Your task to perform on an android device: See recent photos Image 0: 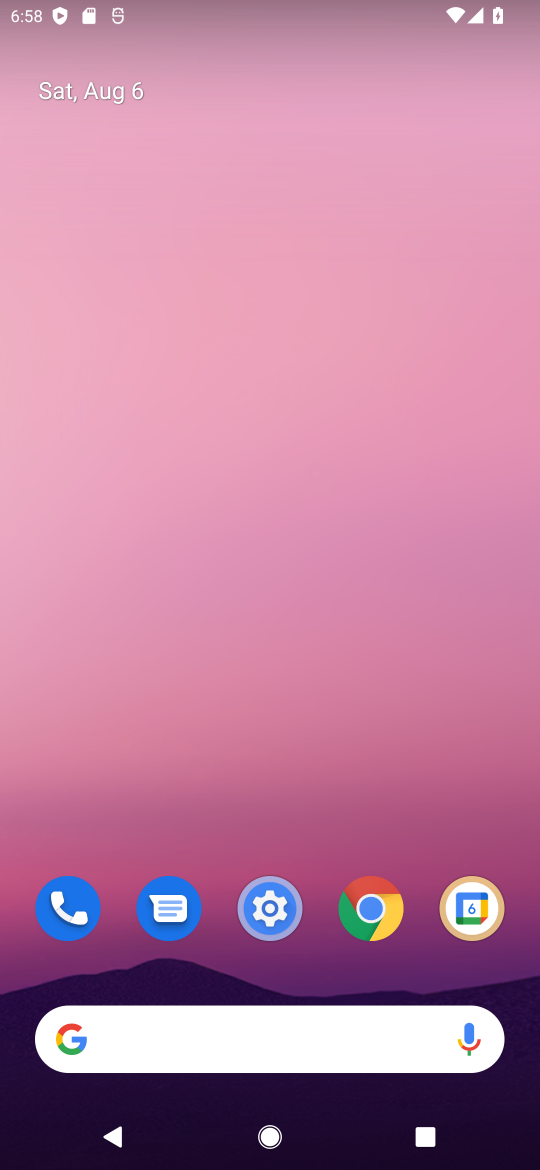
Step 0: drag from (314, 848) to (225, 132)
Your task to perform on an android device: See recent photos Image 1: 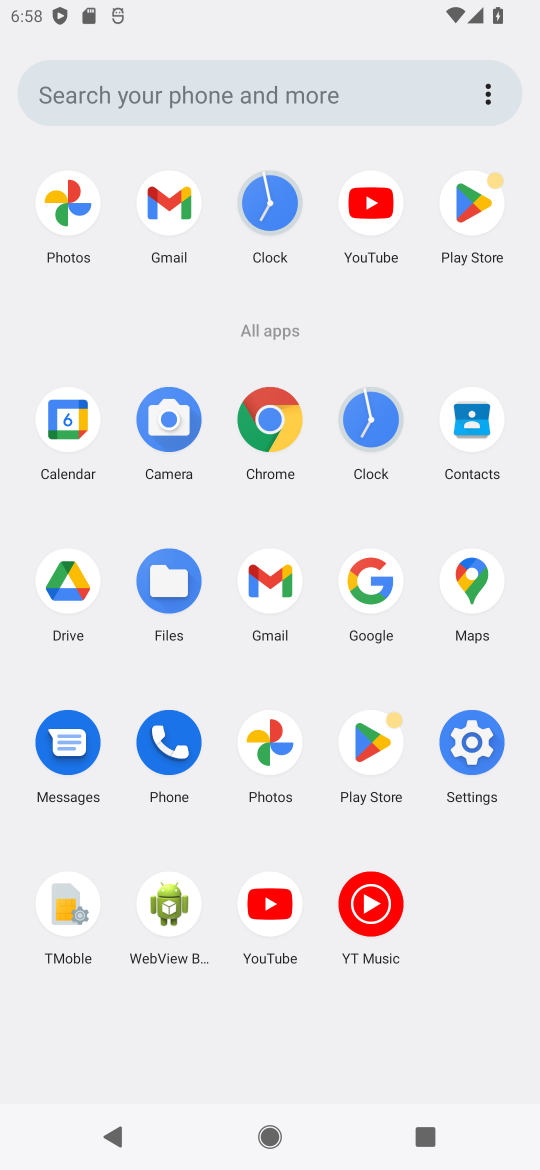
Step 1: click (66, 199)
Your task to perform on an android device: See recent photos Image 2: 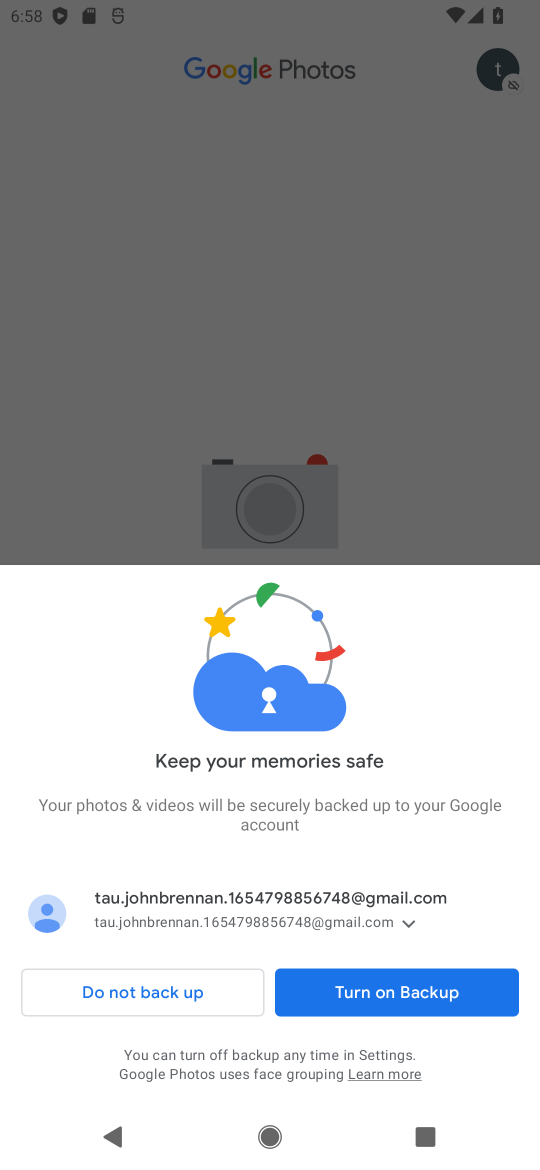
Step 2: click (435, 999)
Your task to perform on an android device: See recent photos Image 3: 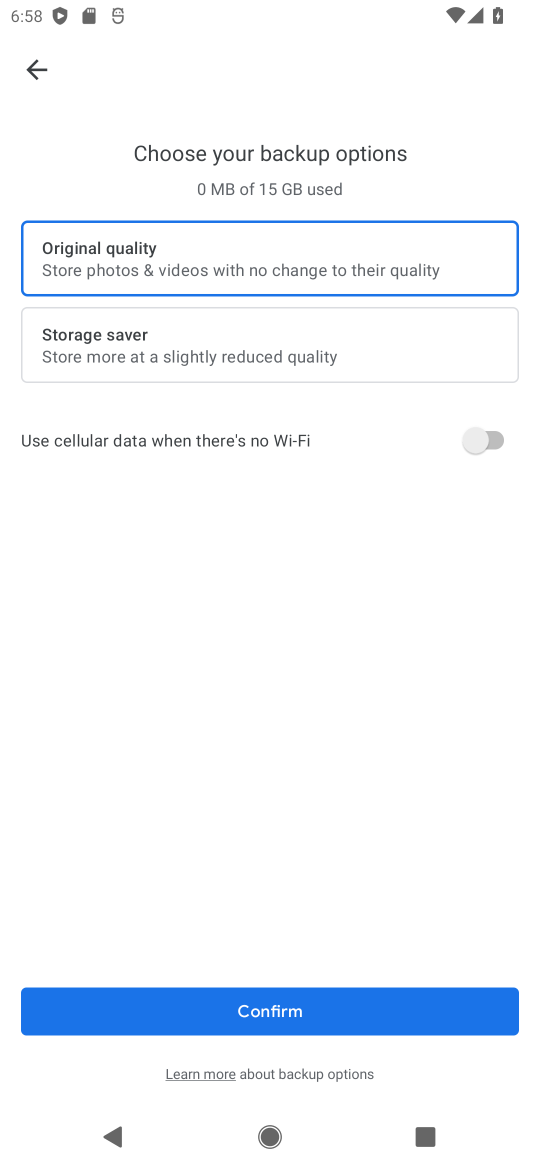
Step 3: click (313, 1006)
Your task to perform on an android device: See recent photos Image 4: 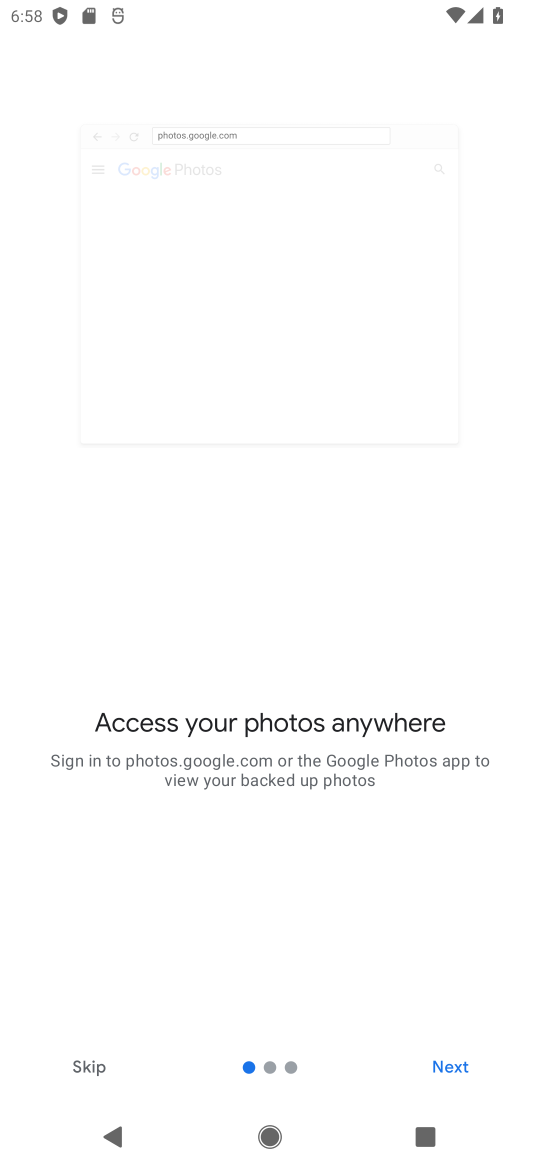
Step 4: click (88, 1071)
Your task to perform on an android device: See recent photos Image 5: 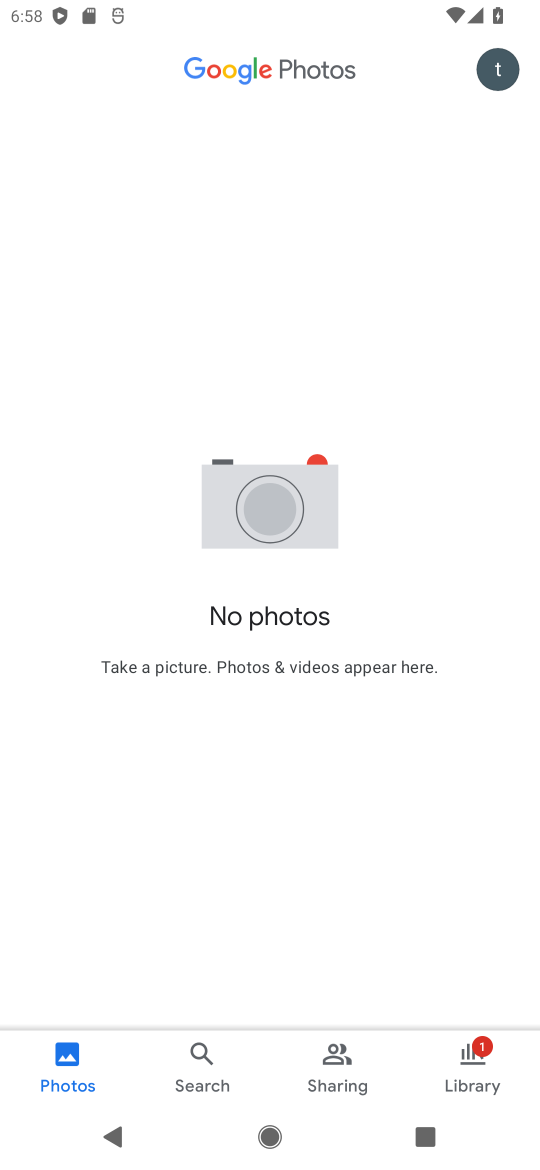
Step 5: task complete